Your task to perform on an android device: Check the weather Image 0: 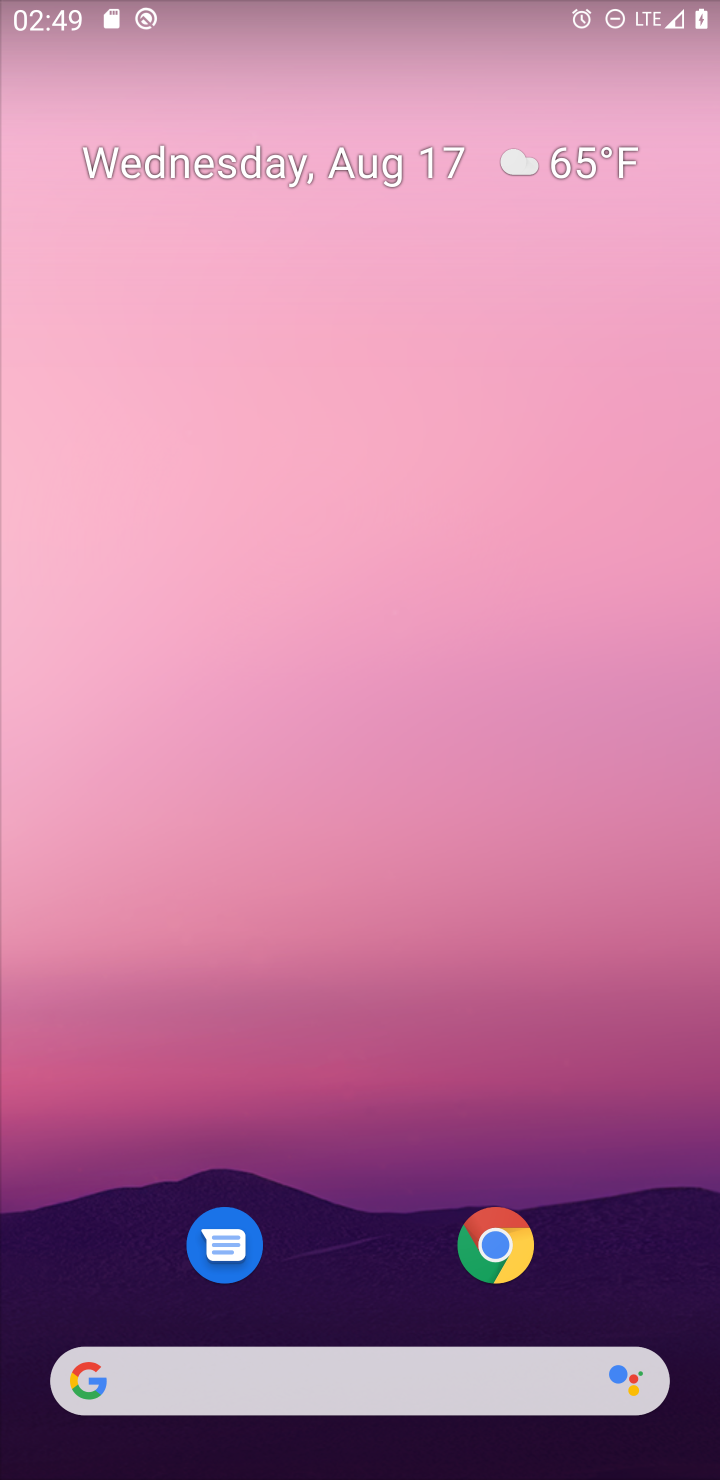
Step 0: drag from (341, 1238) to (434, 174)
Your task to perform on an android device: Check the weather Image 1: 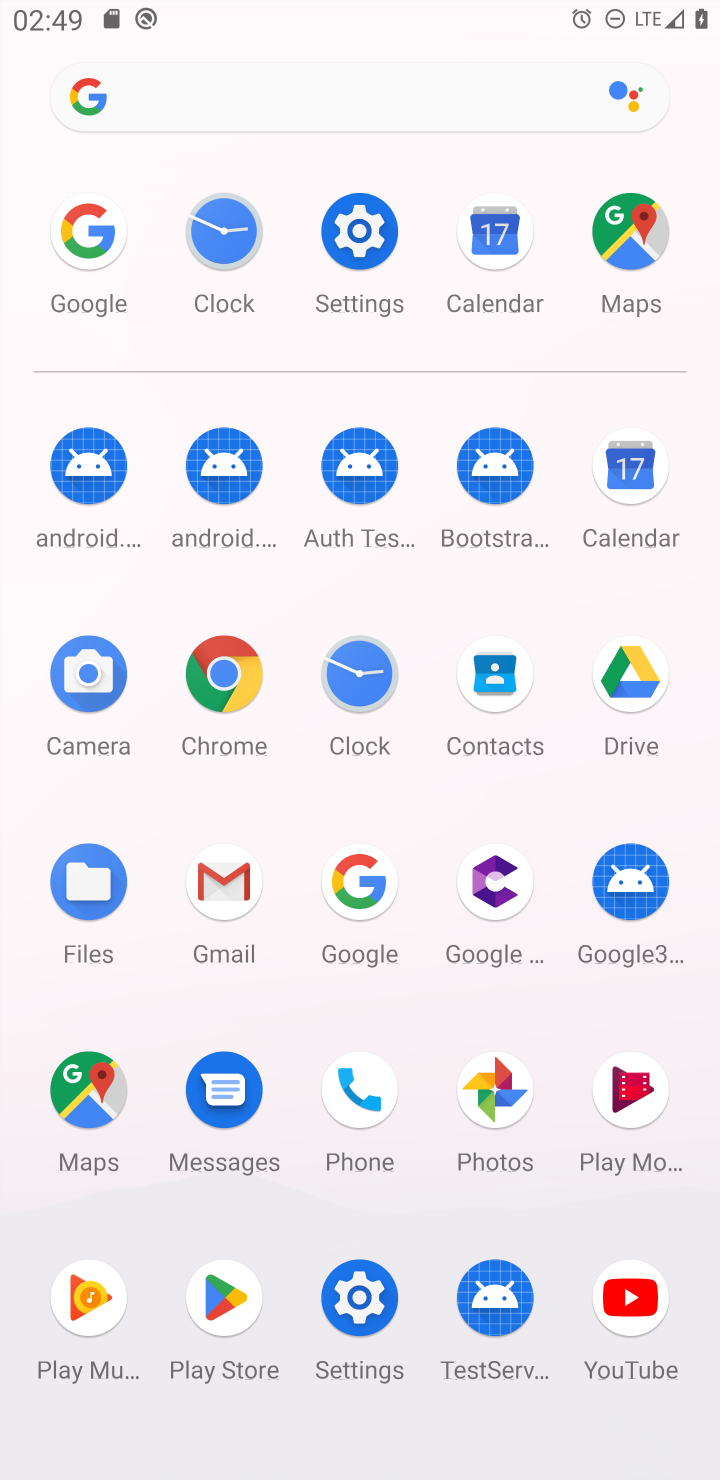
Step 1: click (354, 875)
Your task to perform on an android device: Check the weather Image 2: 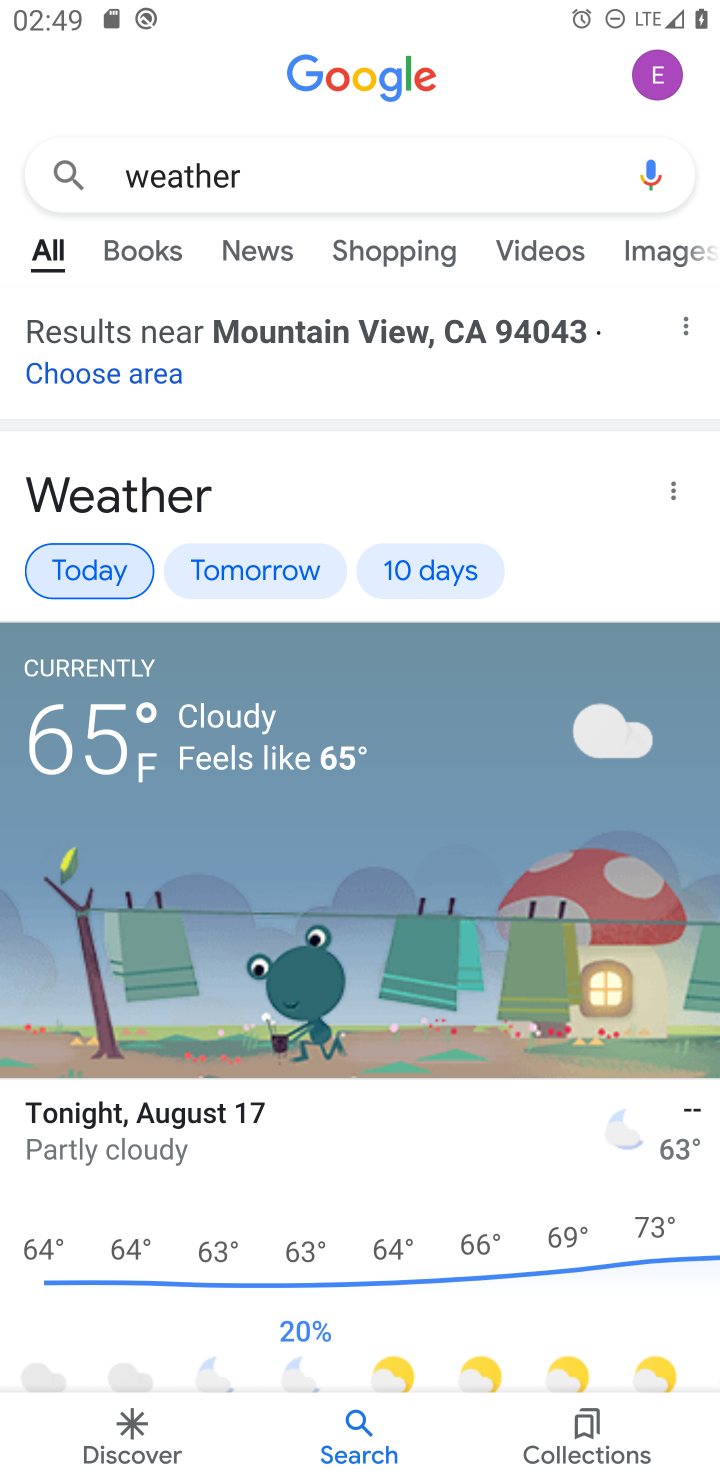
Step 2: click (71, 577)
Your task to perform on an android device: Check the weather Image 3: 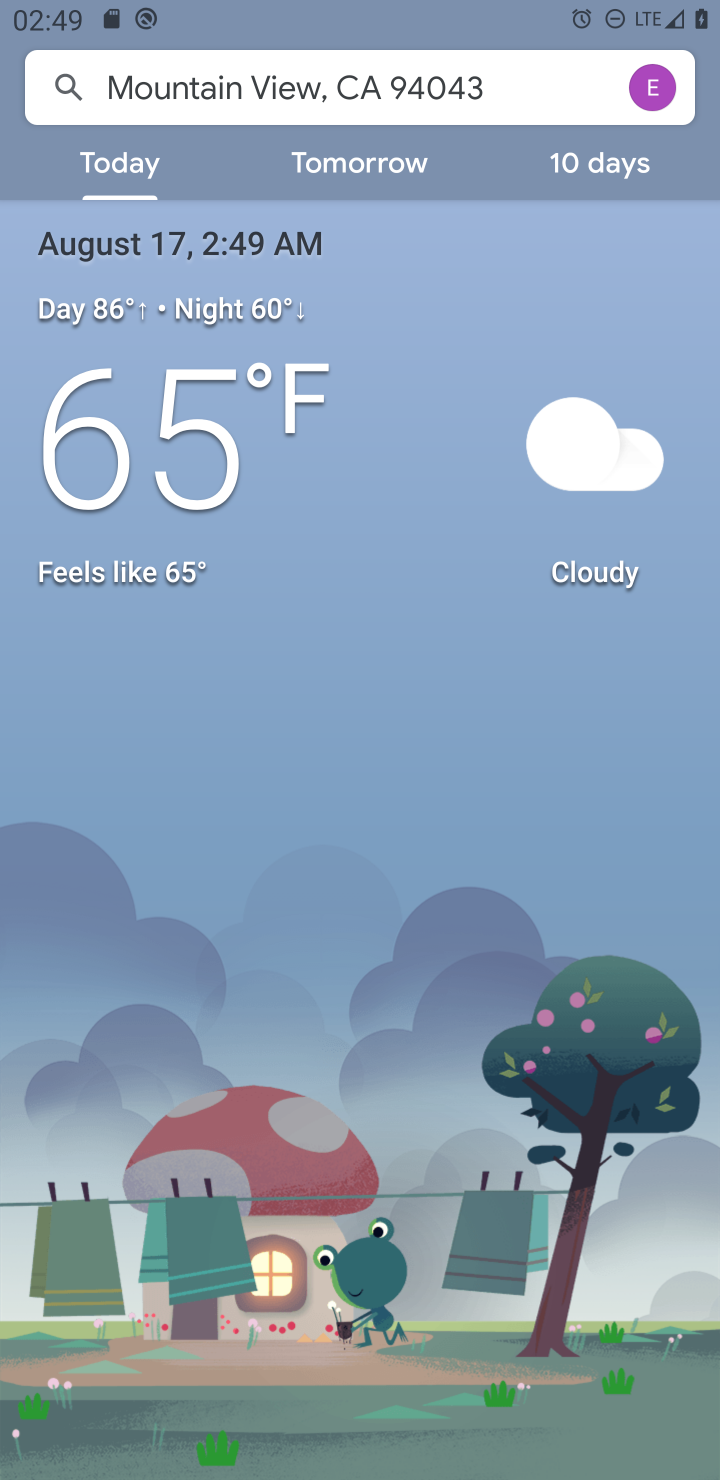
Step 3: task complete